Your task to perform on an android device: When is my next appointment? Image 0: 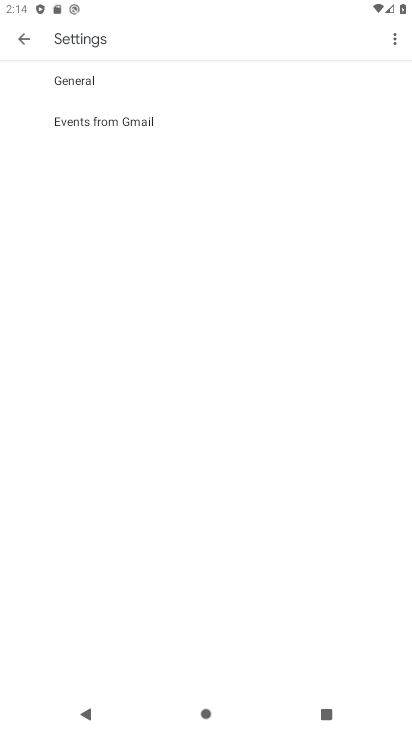
Step 0: press home button
Your task to perform on an android device: When is my next appointment? Image 1: 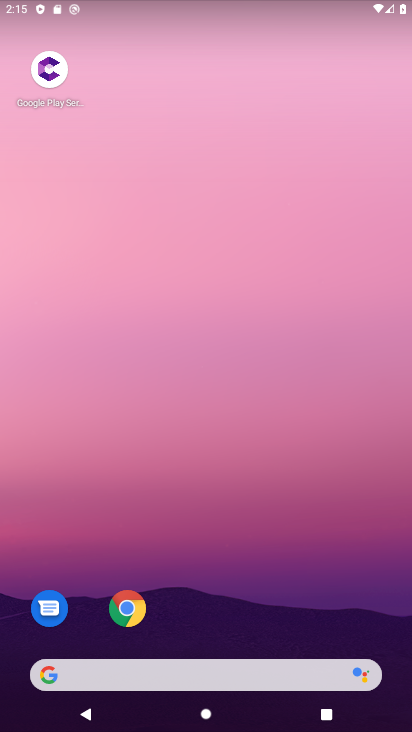
Step 1: drag from (180, 594) to (337, 10)
Your task to perform on an android device: When is my next appointment? Image 2: 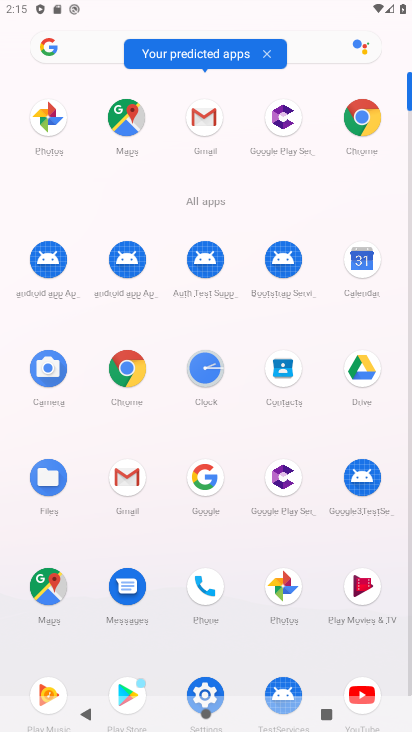
Step 2: click (366, 268)
Your task to perform on an android device: When is my next appointment? Image 3: 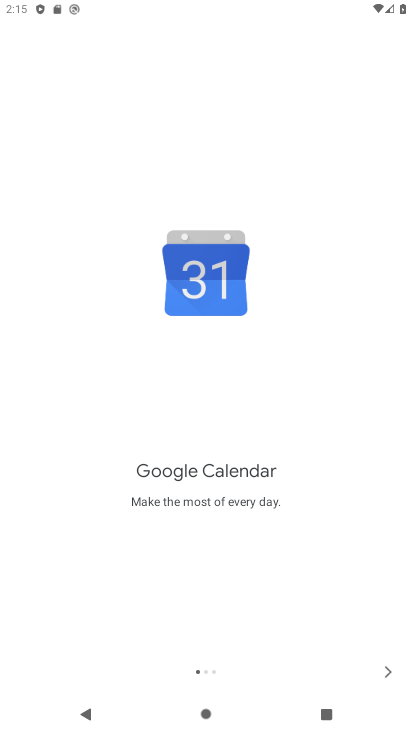
Step 3: click (387, 666)
Your task to perform on an android device: When is my next appointment? Image 4: 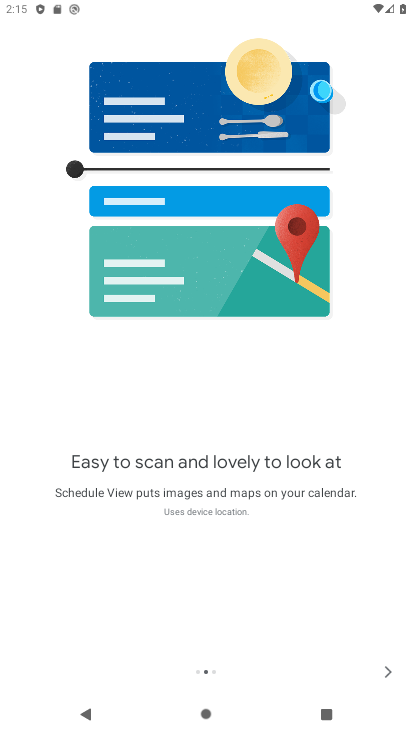
Step 4: click (387, 666)
Your task to perform on an android device: When is my next appointment? Image 5: 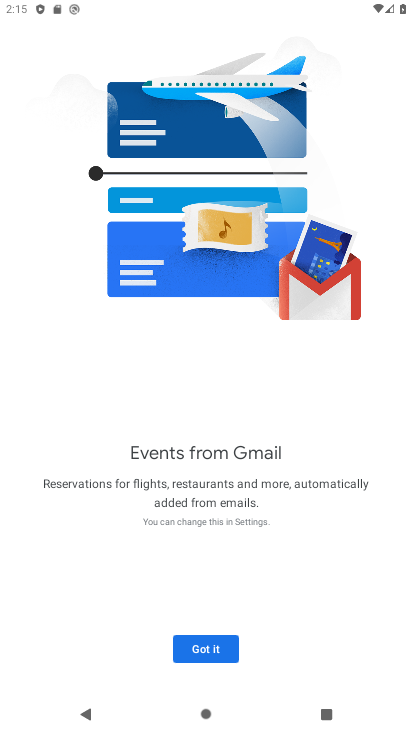
Step 5: click (220, 653)
Your task to perform on an android device: When is my next appointment? Image 6: 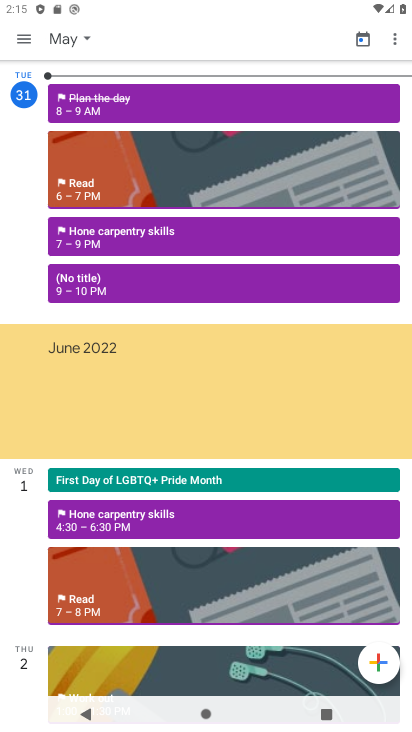
Step 6: click (22, 42)
Your task to perform on an android device: When is my next appointment? Image 7: 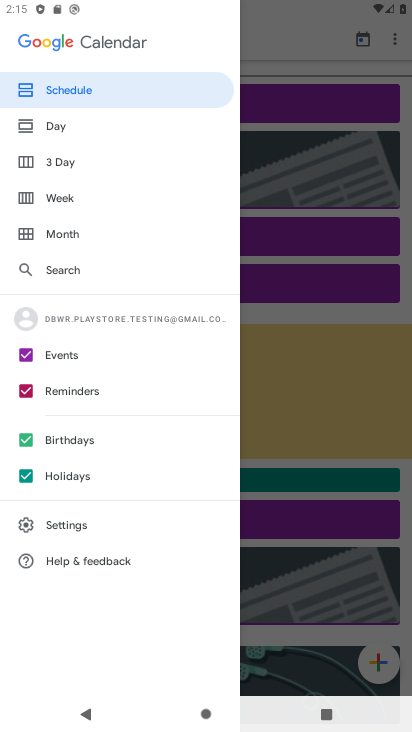
Step 7: drag from (312, 451) to (317, 272)
Your task to perform on an android device: When is my next appointment? Image 8: 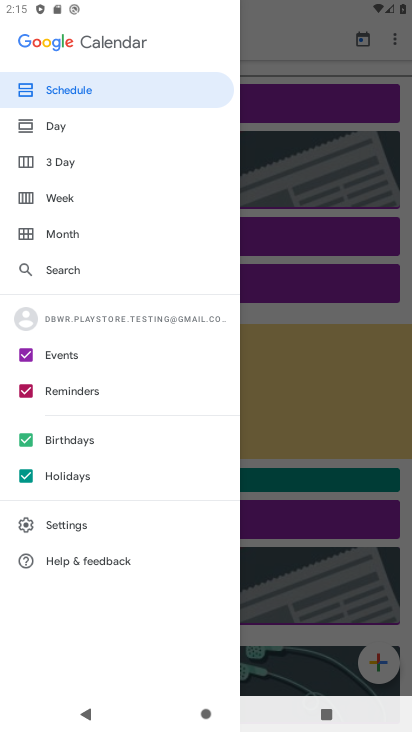
Step 8: click (297, 522)
Your task to perform on an android device: When is my next appointment? Image 9: 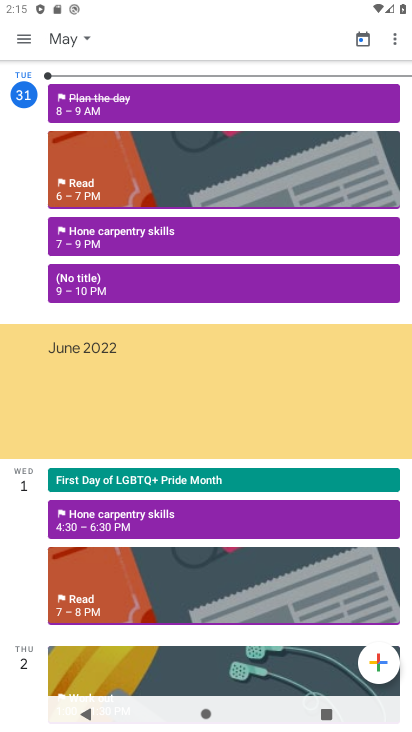
Step 9: drag from (287, 518) to (279, 245)
Your task to perform on an android device: When is my next appointment? Image 10: 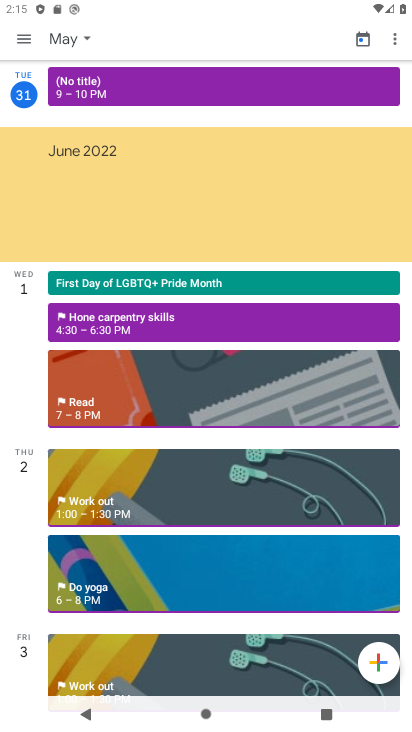
Step 10: drag from (178, 556) to (216, 223)
Your task to perform on an android device: When is my next appointment? Image 11: 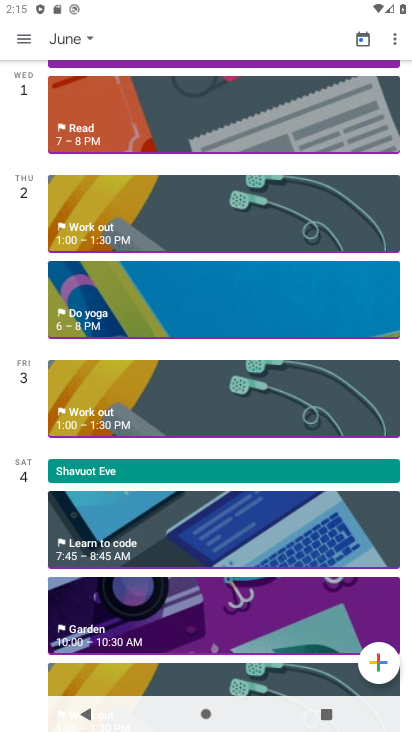
Step 11: drag from (220, 204) to (223, 59)
Your task to perform on an android device: When is my next appointment? Image 12: 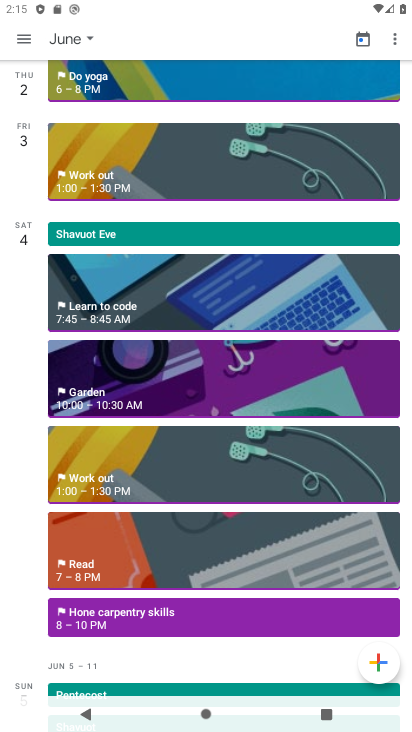
Step 12: drag from (151, 557) to (230, 146)
Your task to perform on an android device: When is my next appointment? Image 13: 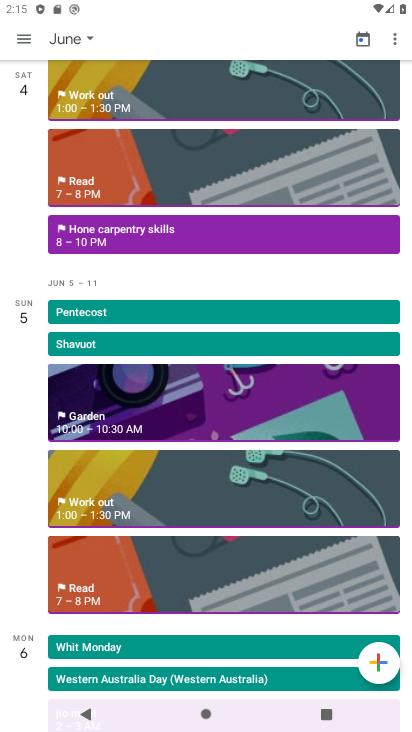
Step 13: drag from (133, 635) to (212, 269)
Your task to perform on an android device: When is my next appointment? Image 14: 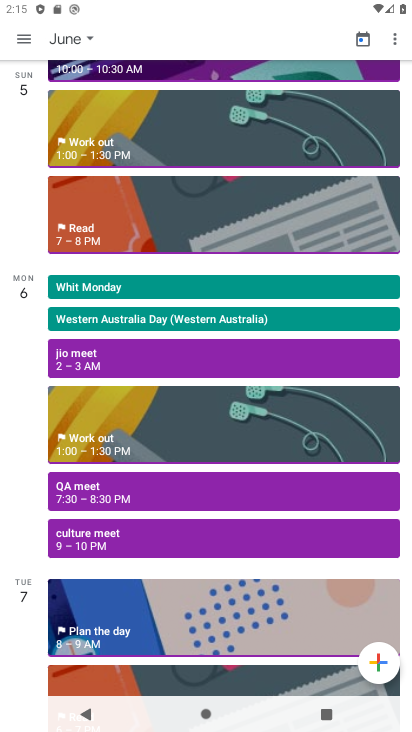
Step 14: click (142, 355)
Your task to perform on an android device: When is my next appointment? Image 15: 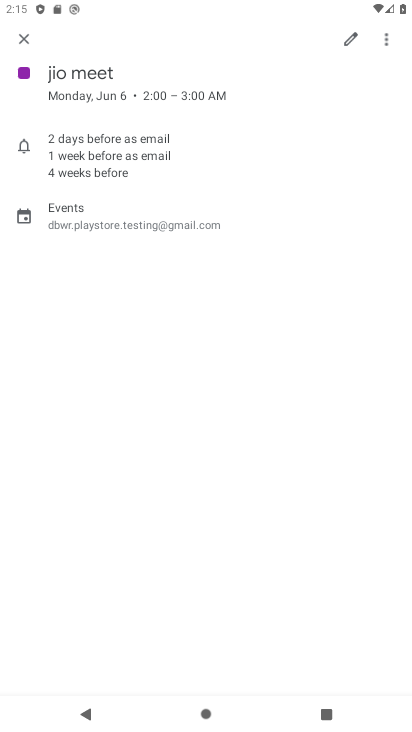
Step 15: task complete